Your task to perform on an android device: Open privacy settings Image 0: 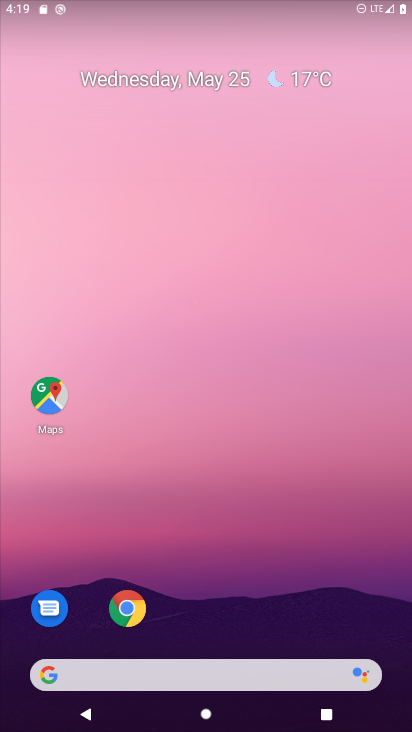
Step 0: drag from (381, 614) to (327, 88)
Your task to perform on an android device: Open privacy settings Image 1: 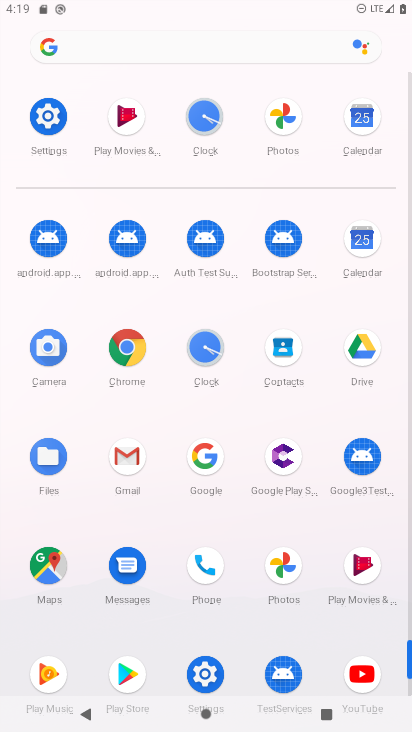
Step 1: click (206, 672)
Your task to perform on an android device: Open privacy settings Image 2: 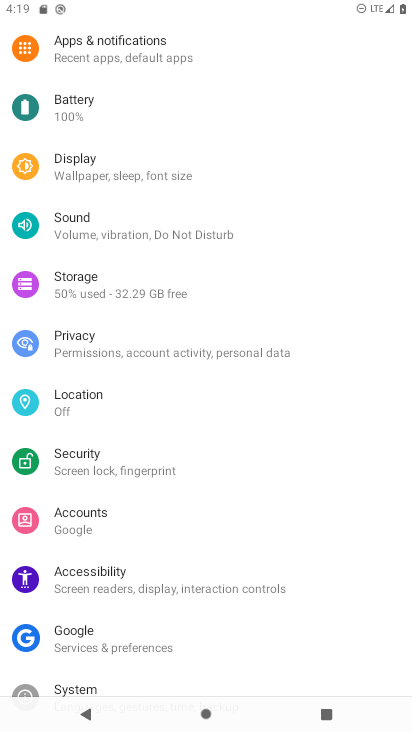
Step 2: click (74, 343)
Your task to perform on an android device: Open privacy settings Image 3: 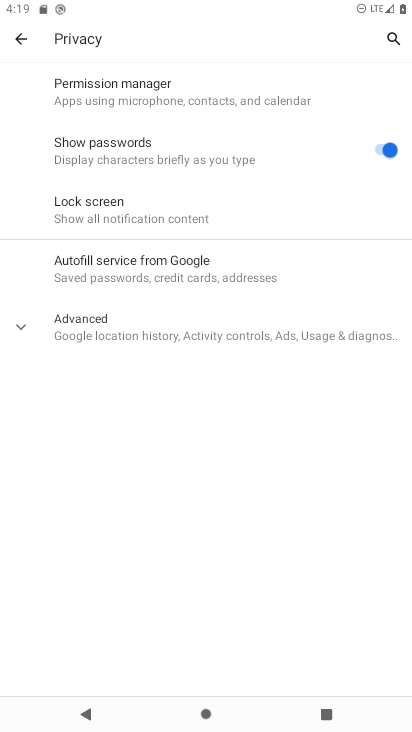
Step 3: click (24, 329)
Your task to perform on an android device: Open privacy settings Image 4: 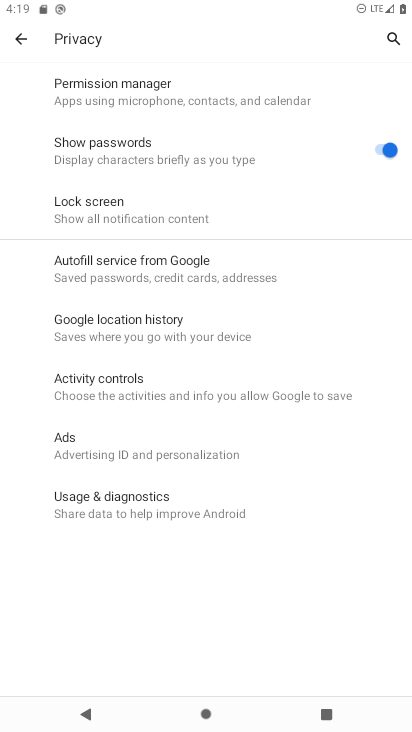
Step 4: task complete